Your task to perform on an android device: Do I have any events tomorrow? Image 0: 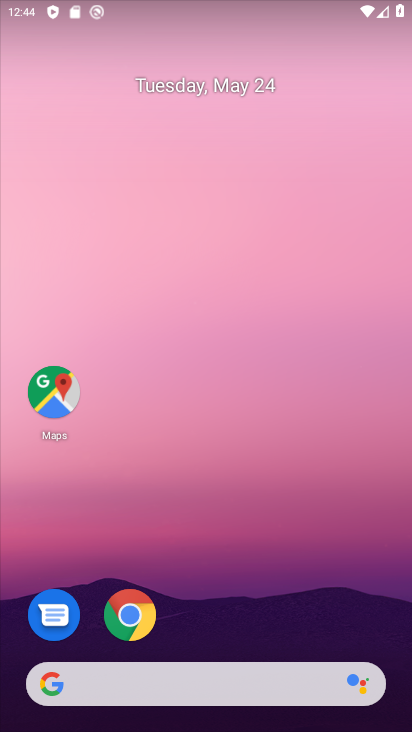
Step 0: press home button
Your task to perform on an android device: Do I have any events tomorrow? Image 1: 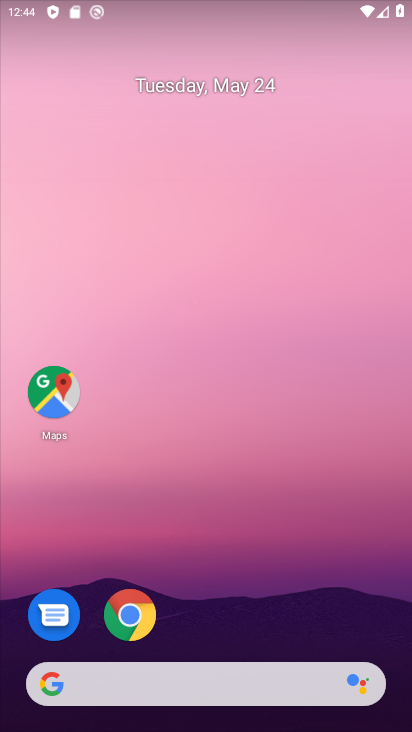
Step 1: drag from (219, 640) to (249, 118)
Your task to perform on an android device: Do I have any events tomorrow? Image 2: 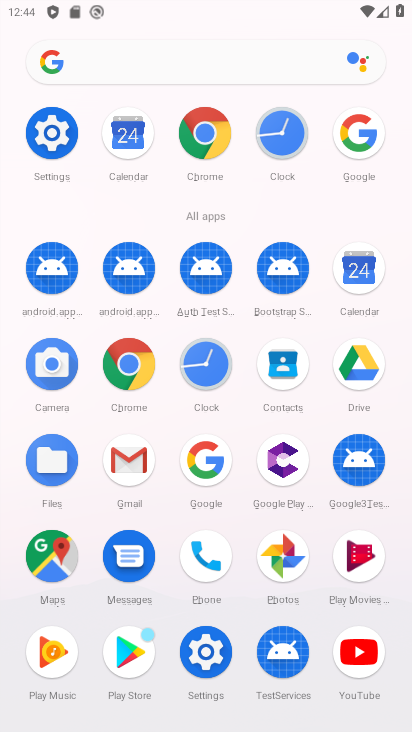
Step 2: click (359, 265)
Your task to perform on an android device: Do I have any events tomorrow? Image 3: 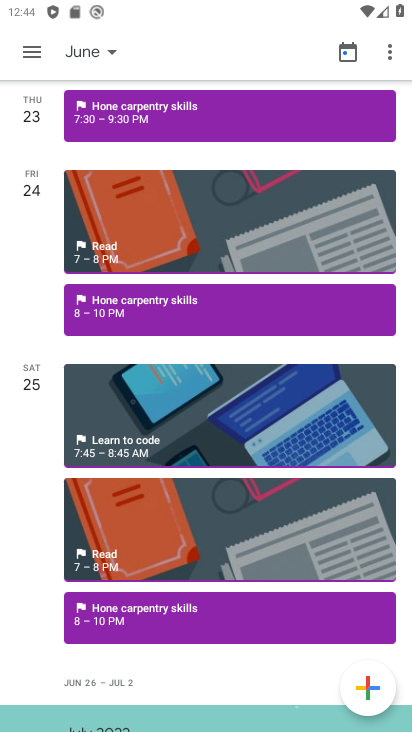
Step 3: click (24, 46)
Your task to perform on an android device: Do I have any events tomorrow? Image 4: 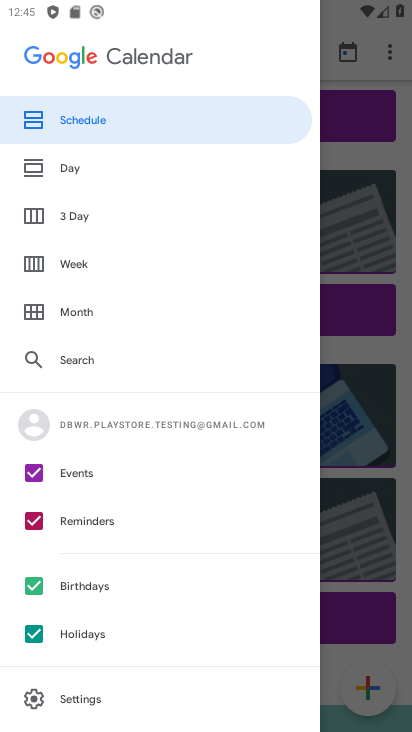
Step 4: click (59, 169)
Your task to perform on an android device: Do I have any events tomorrow? Image 5: 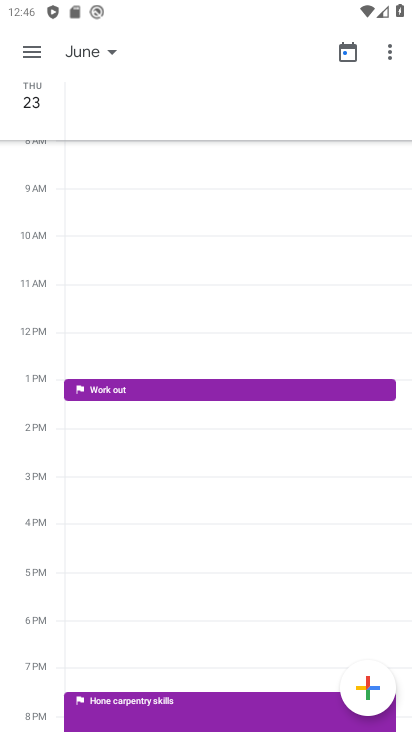
Step 5: task complete